Your task to perform on an android device: Open privacy settings Image 0: 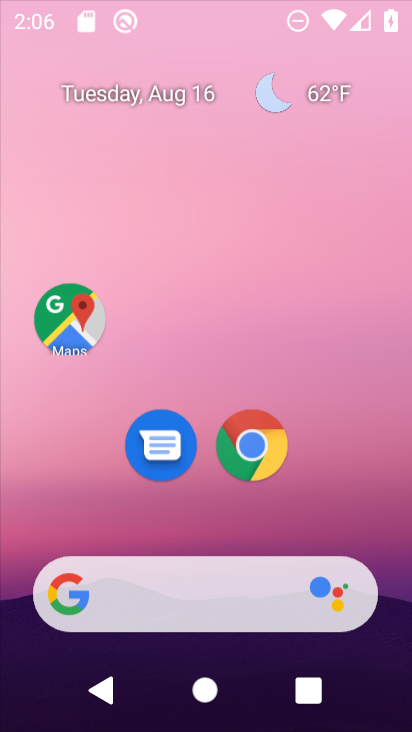
Step 0: press home button
Your task to perform on an android device: Open privacy settings Image 1: 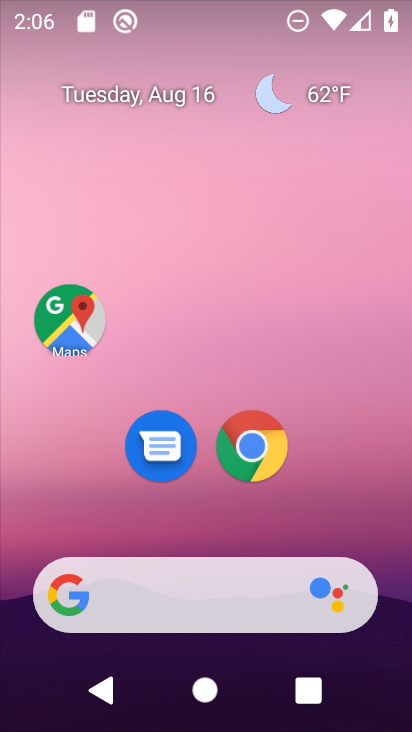
Step 1: drag from (208, 528) to (259, 4)
Your task to perform on an android device: Open privacy settings Image 2: 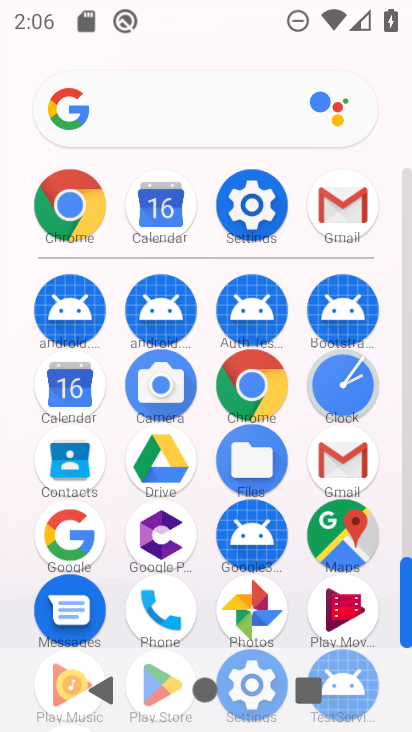
Step 2: click (248, 197)
Your task to perform on an android device: Open privacy settings Image 3: 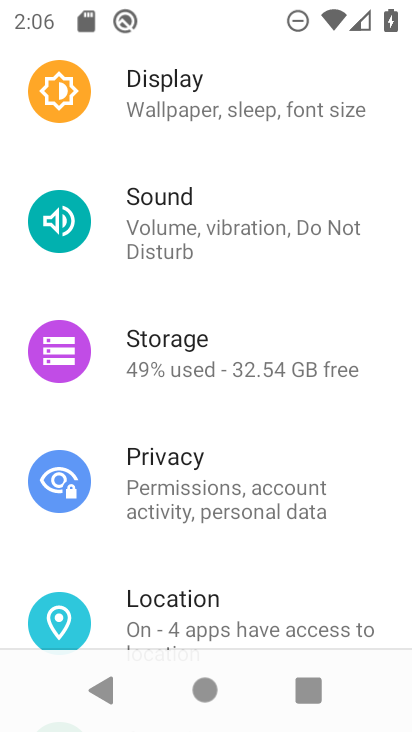
Step 3: click (218, 469)
Your task to perform on an android device: Open privacy settings Image 4: 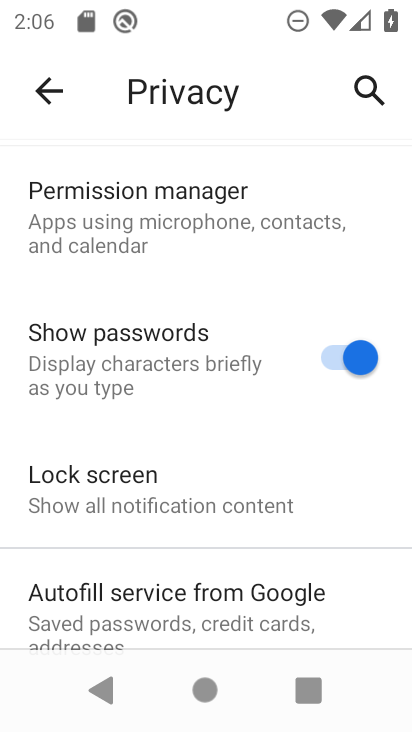
Step 4: drag from (217, 559) to (217, 109)
Your task to perform on an android device: Open privacy settings Image 5: 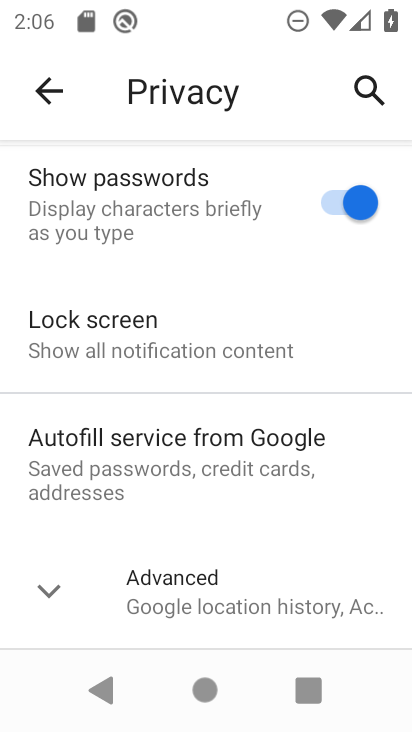
Step 5: click (48, 594)
Your task to perform on an android device: Open privacy settings Image 6: 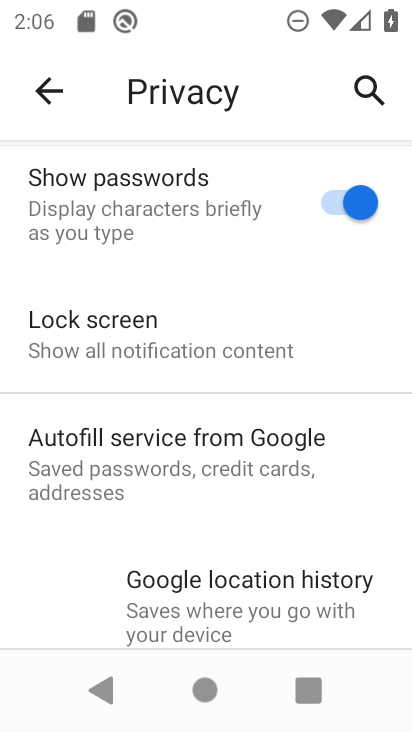
Step 6: task complete